Your task to perform on an android device: Open internet settings Image 0: 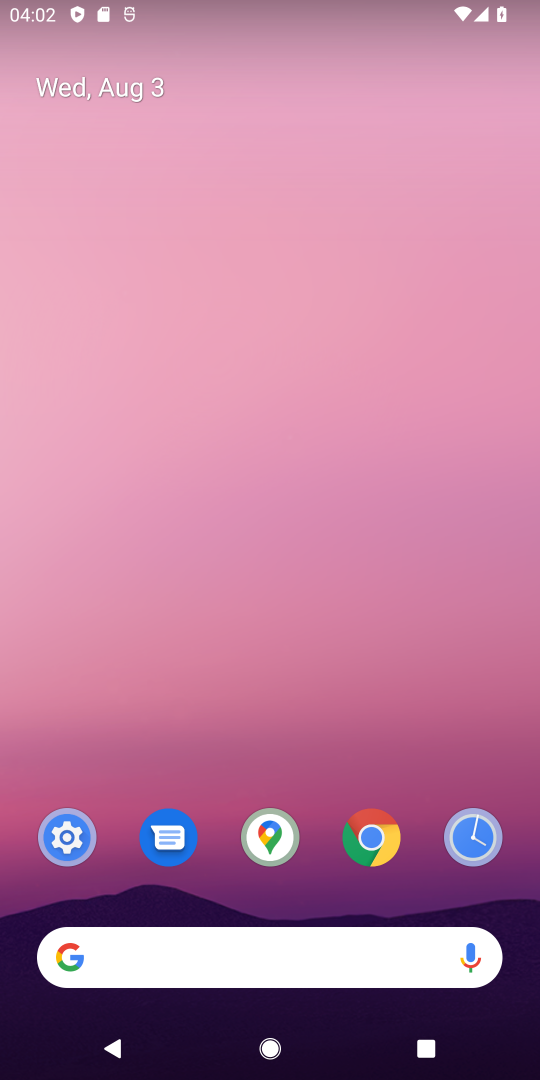
Step 0: drag from (423, 874) to (411, 176)
Your task to perform on an android device: Open internet settings Image 1: 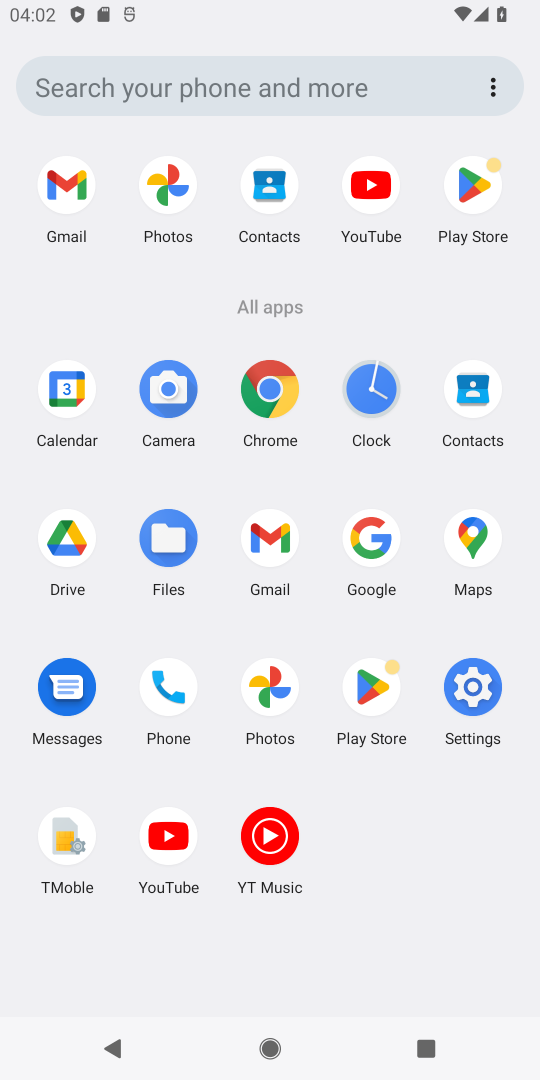
Step 1: click (474, 687)
Your task to perform on an android device: Open internet settings Image 2: 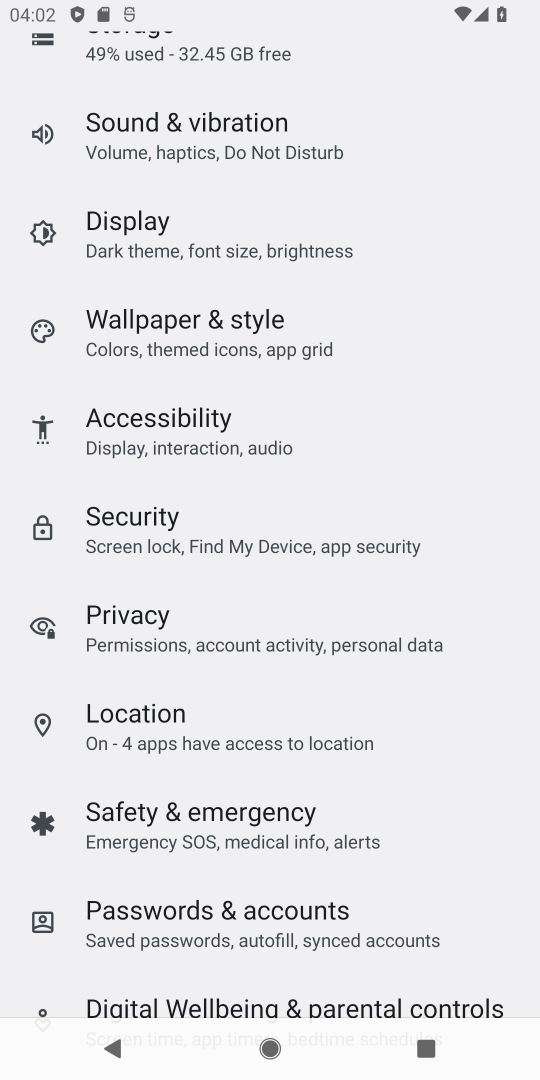
Step 2: drag from (385, 137) to (379, 631)
Your task to perform on an android device: Open internet settings Image 3: 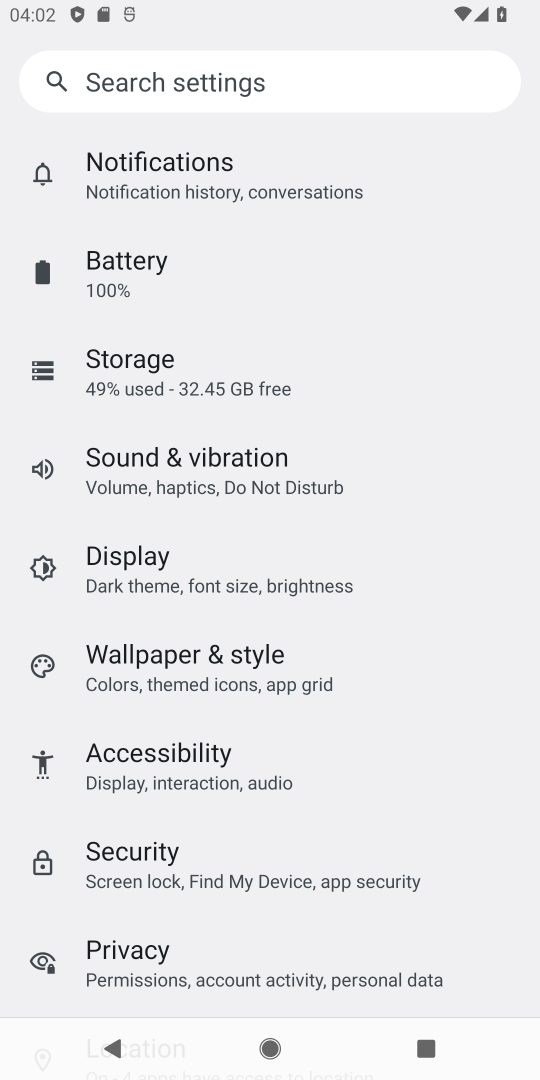
Step 3: drag from (399, 266) to (403, 698)
Your task to perform on an android device: Open internet settings Image 4: 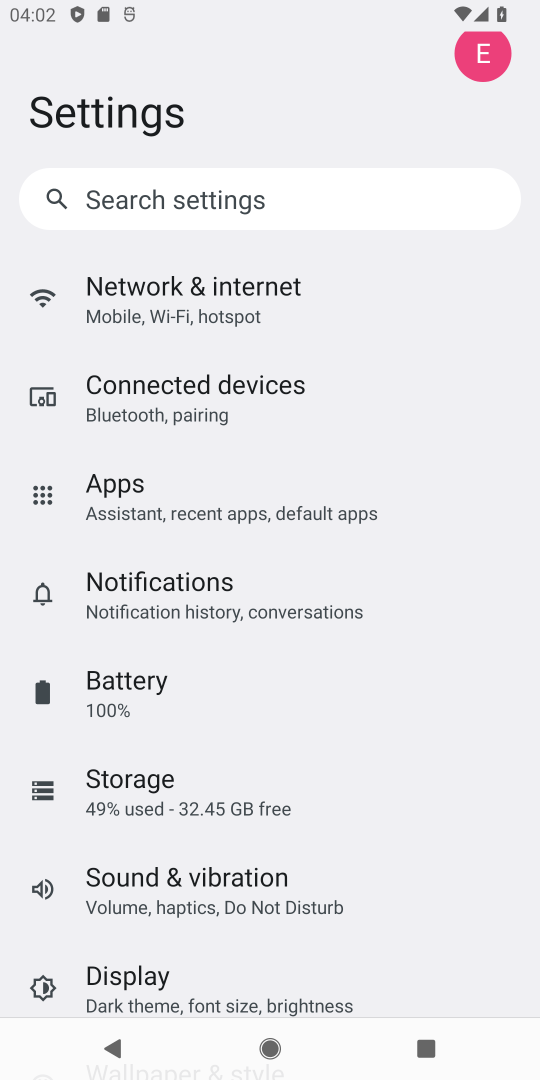
Step 4: click (147, 286)
Your task to perform on an android device: Open internet settings Image 5: 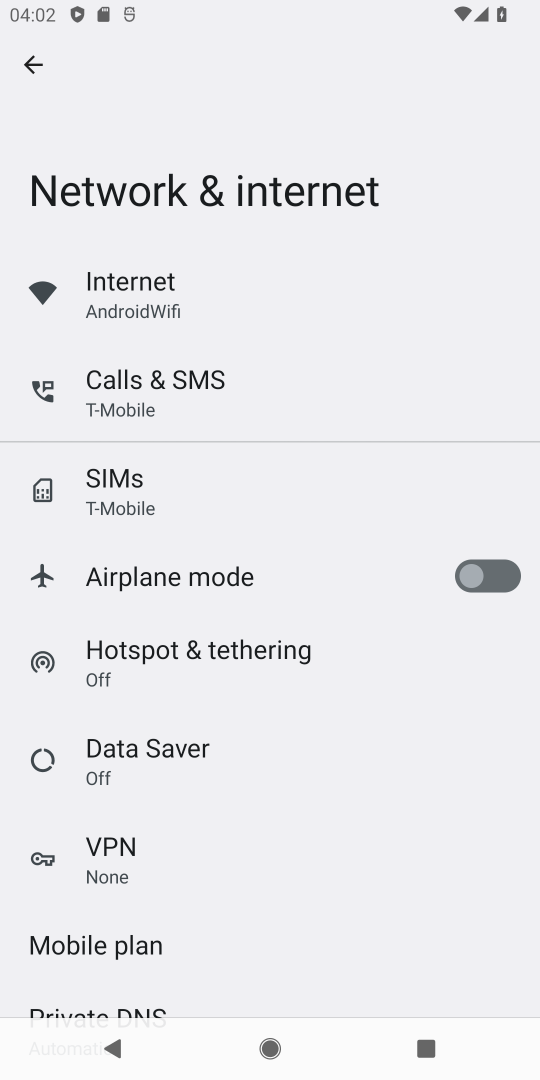
Step 5: click (119, 280)
Your task to perform on an android device: Open internet settings Image 6: 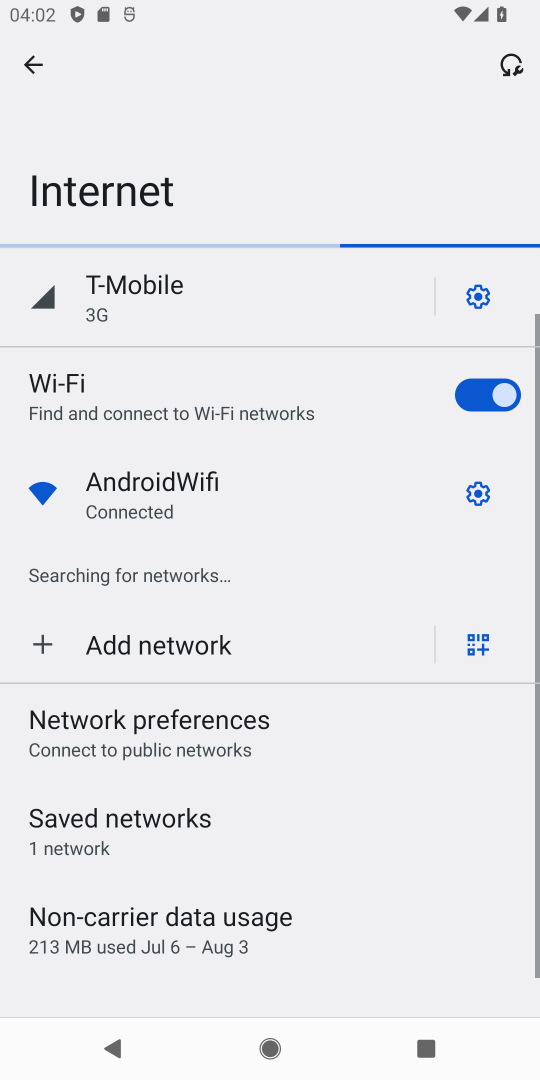
Step 6: task complete